Your task to perform on an android device: delete browsing data in the chrome app Image 0: 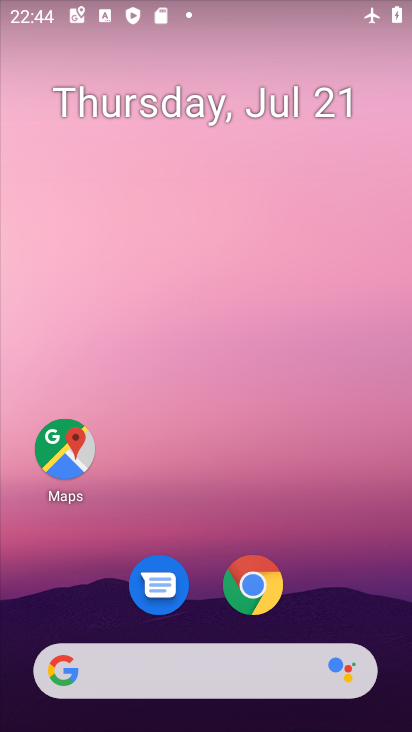
Step 0: click (261, 583)
Your task to perform on an android device: delete browsing data in the chrome app Image 1: 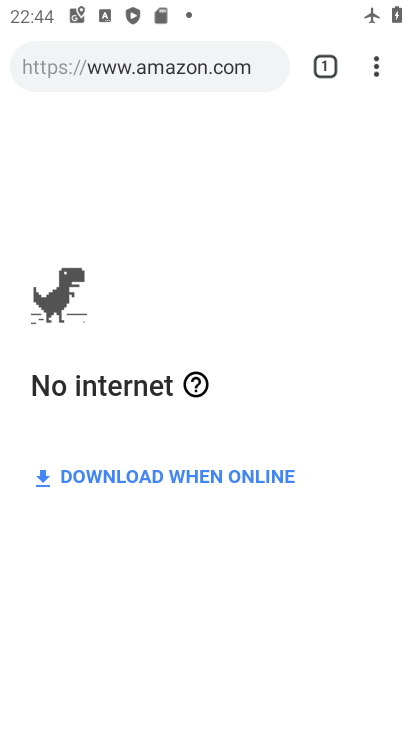
Step 1: click (372, 68)
Your task to perform on an android device: delete browsing data in the chrome app Image 2: 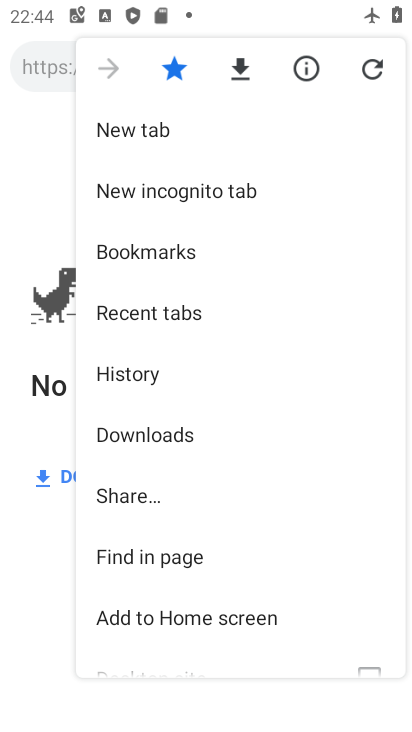
Step 2: click (146, 372)
Your task to perform on an android device: delete browsing data in the chrome app Image 3: 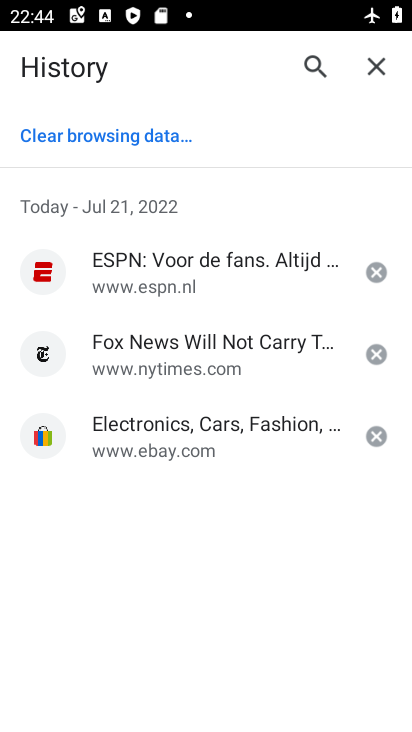
Step 3: click (121, 133)
Your task to perform on an android device: delete browsing data in the chrome app Image 4: 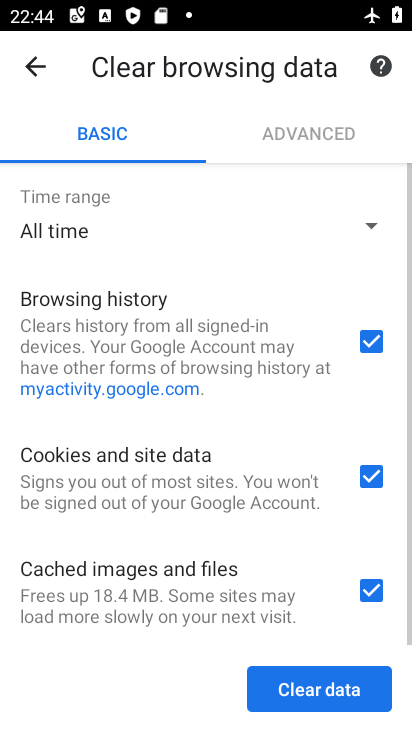
Step 4: click (326, 691)
Your task to perform on an android device: delete browsing data in the chrome app Image 5: 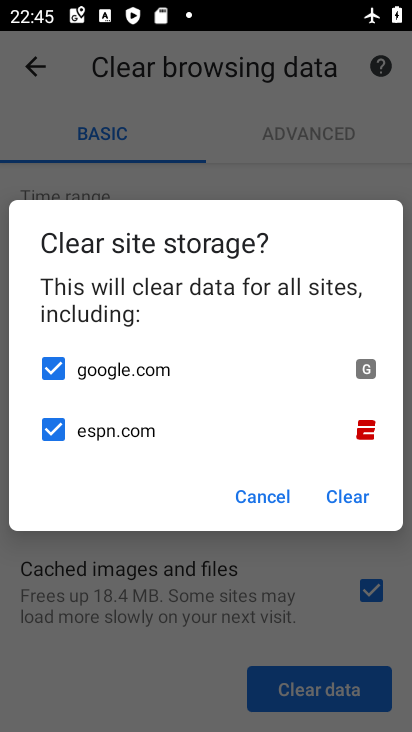
Step 5: click (357, 495)
Your task to perform on an android device: delete browsing data in the chrome app Image 6: 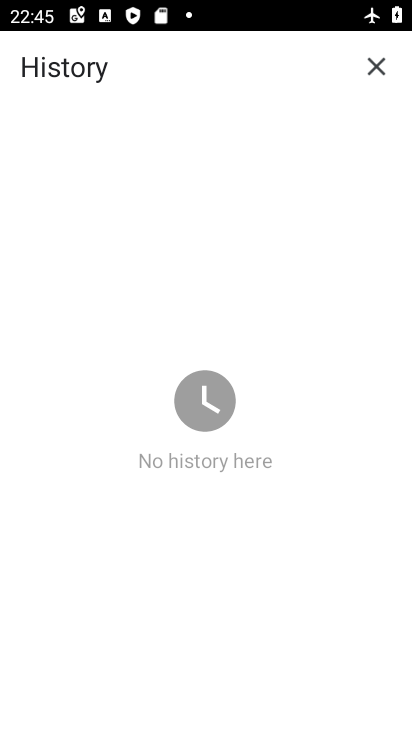
Step 6: task complete